Your task to perform on an android device: empty trash in google photos Image 0: 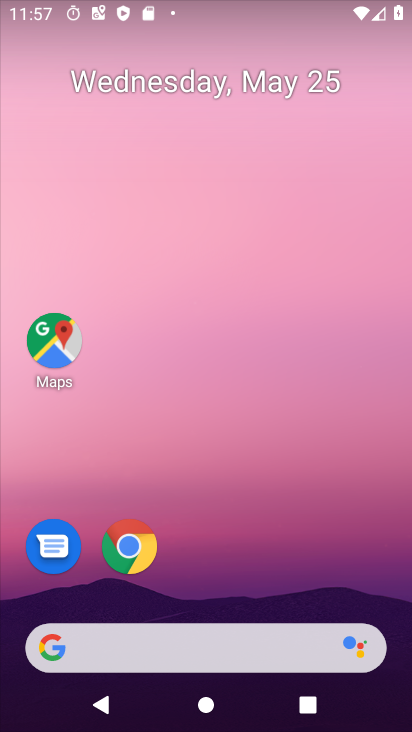
Step 0: drag from (245, 582) to (377, 39)
Your task to perform on an android device: empty trash in google photos Image 1: 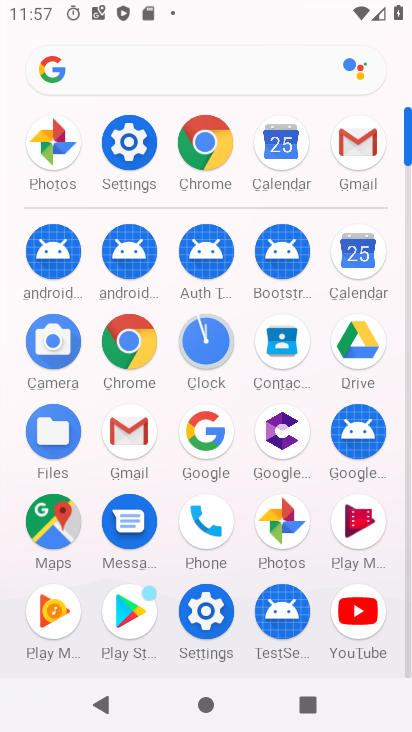
Step 1: click (54, 149)
Your task to perform on an android device: empty trash in google photos Image 2: 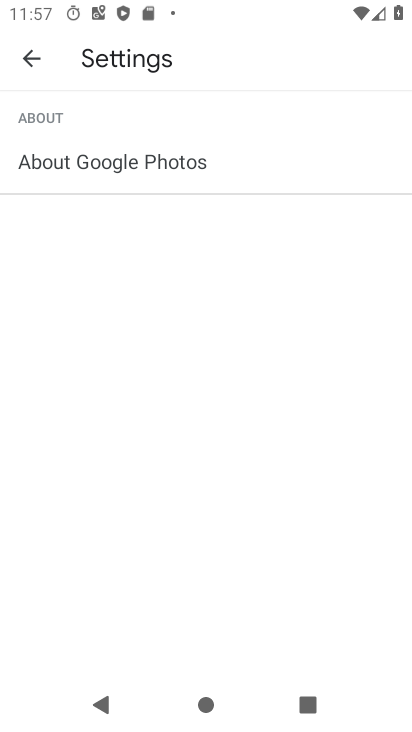
Step 2: click (36, 46)
Your task to perform on an android device: empty trash in google photos Image 3: 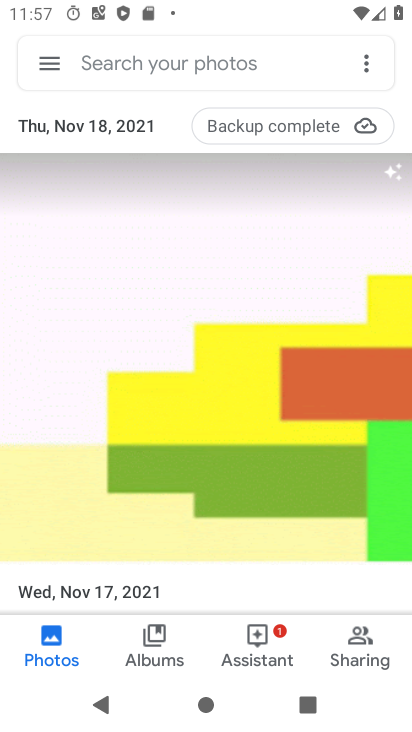
Step 3: click (37, 47)
Your task to perform on an android device: empty trash in google photos Image 4: 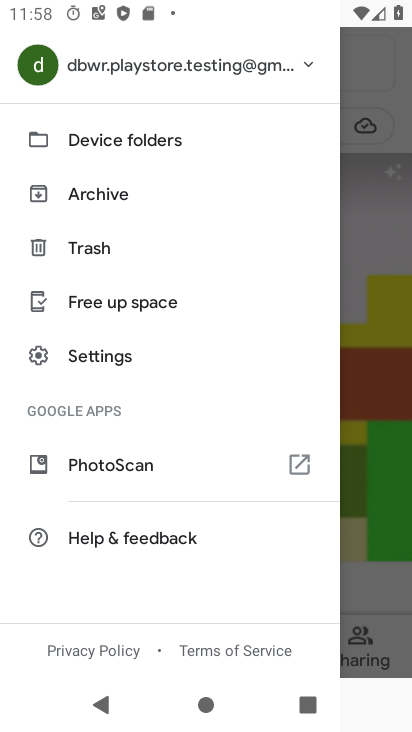
Step 4: click (134, 227)
Your task to perform on an android device: empty trash in google photos Image 5: 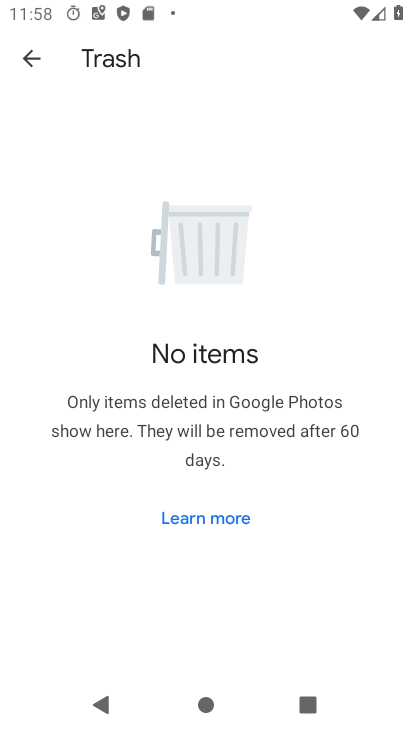
Step 5: task complete